Your task to perform on an android device: Go to internet settings Image 0: 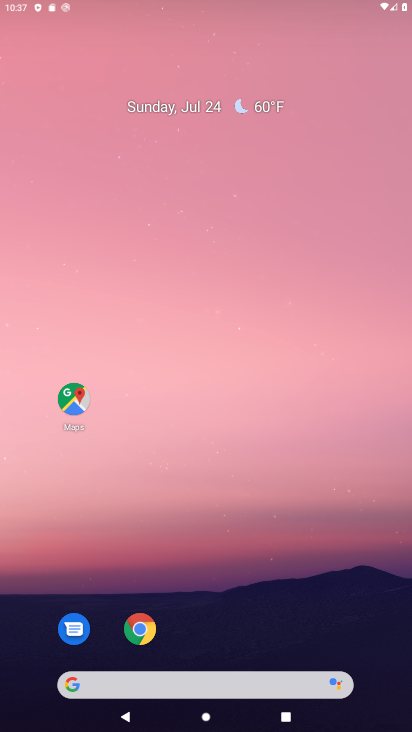
Step 0: press back button
Your task to perform on an android device: Go to internet settings Image 1: 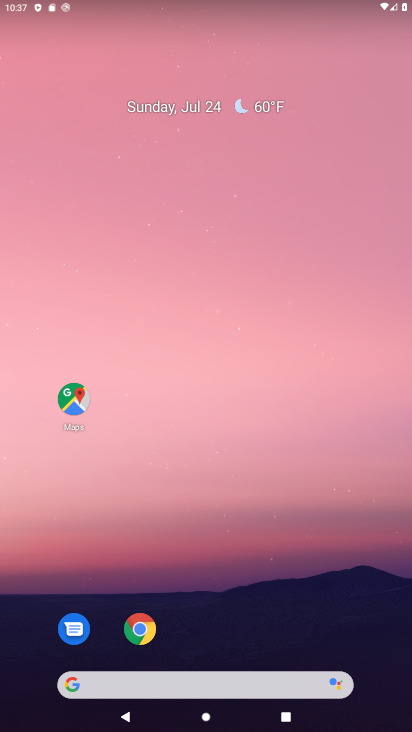
Step 1: drag from (251, 291) to (237, 190)
Your task to perform on an android device: Go to internet settings Image 2: 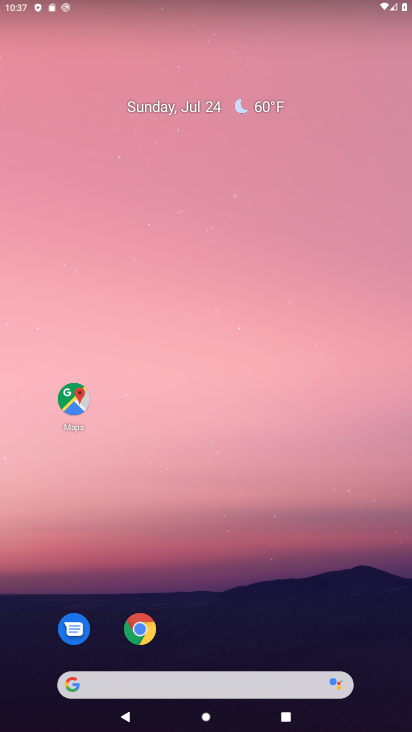
Step 2: drag from (239, 569) to (136, 164)
Your task to perform on an android device: Go to internet settings Image 3: 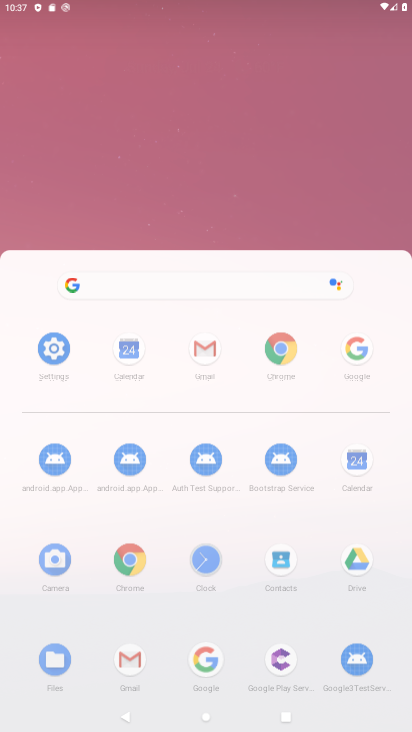
Step 3: drag from (251, 412) to (251, 128)
Your task to perform on an android device: Go to internet settings Image 4: 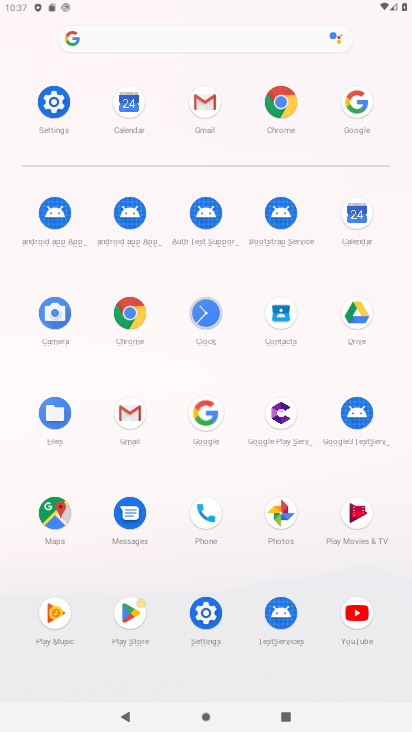
Step 4: click (46, 97)
Your task to perform on an android device: Go to internet settings Image 5: 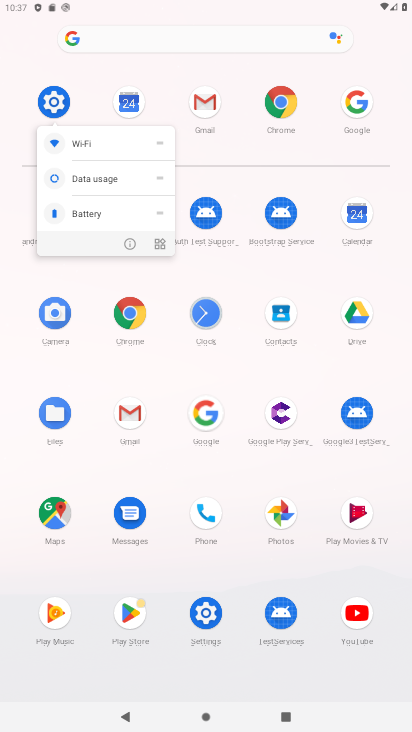
Step 5: click (55, 102)
Your task to perform on an android device: Go to internet settings Image 6: 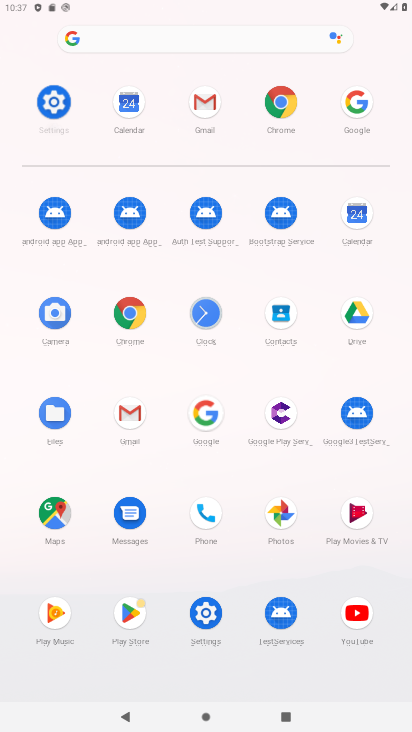
Step 6: click (55, 101)
Your task to perform on an android device: Go to internet settings Image 7: 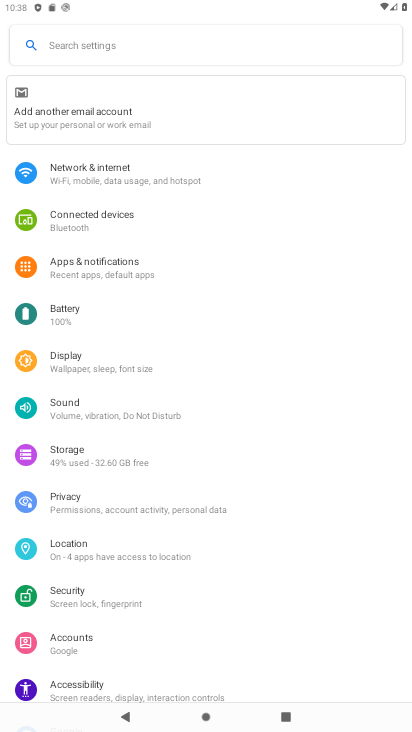
Step 7: click (98, 161)
Your task to perform on an android device: Go to internet settings Image 8: 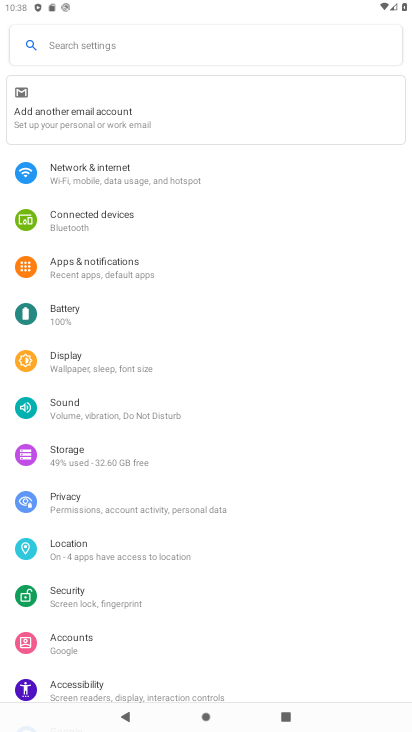
Step 8: click (103, 163)
Your task to perform on an android device: Go to internet settings Image 9: 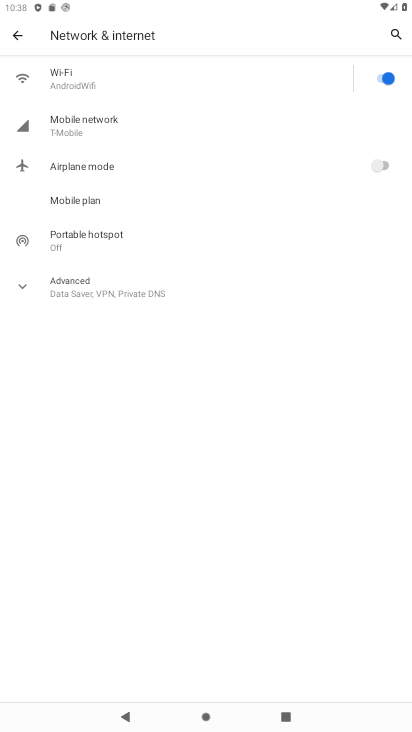
Step 9: task complete